Your task to perform on an android device: open a bookmark in the chrome app Image 0: 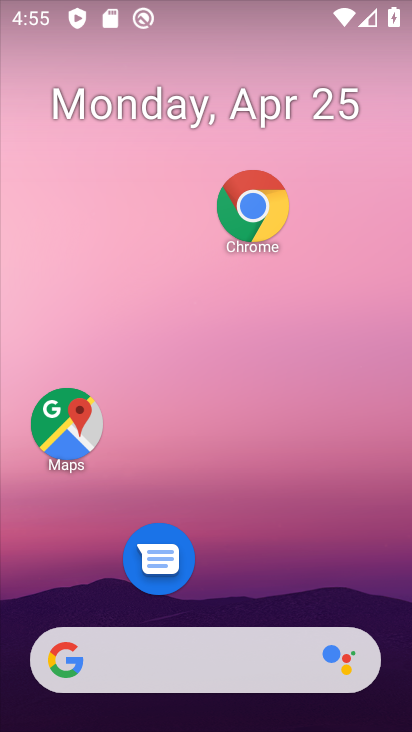
Step 0: click (249, 204)
Your task to perform on an android device: open a bookmark in the chrome app Image 1: 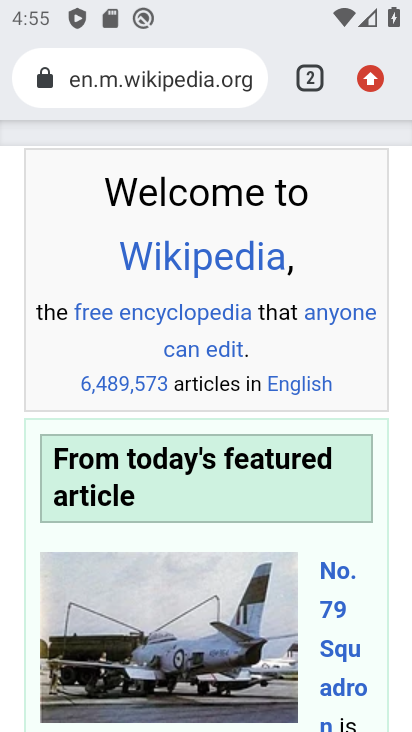
Step 1: click (367, 81)
Your task to perform on an android device: open a bookmark in the chrome app Image 2: 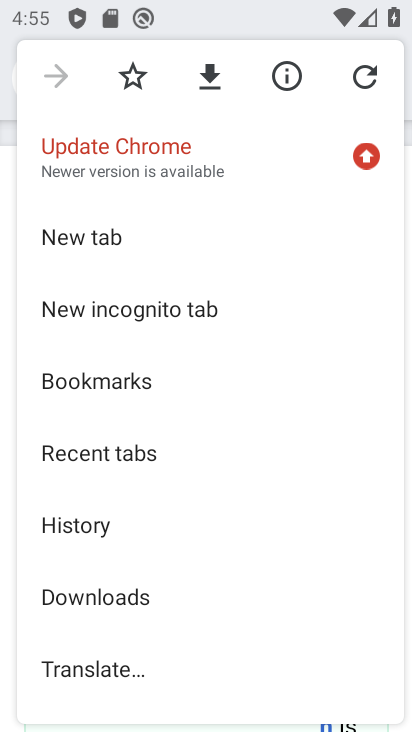
Step 2: click (109, 384)
Your task to perform on an android device: open a bookmark in the chrome app Image 3: 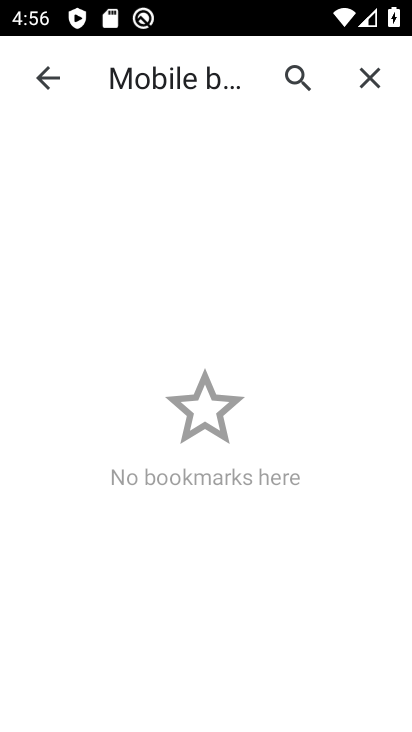
Step 3: task complete